Your task to perform on an android device: Open the calendar app, open the side menu, and click the "Day" option Image 0: 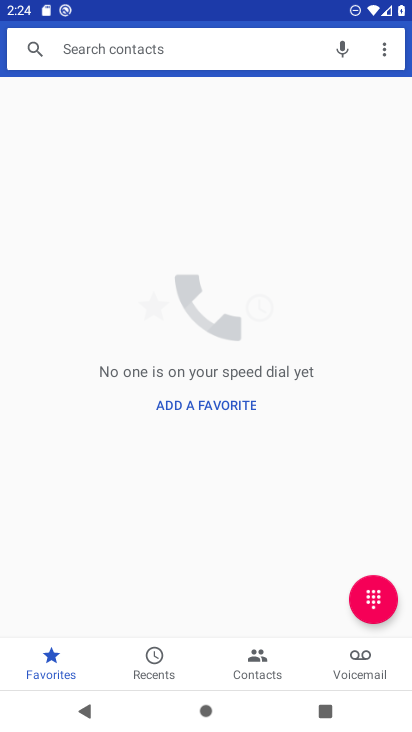
Step 0: press home button
Your task to perform on an android device: Open the calendar app, open the side menu, and click the "Day" option Image 1: 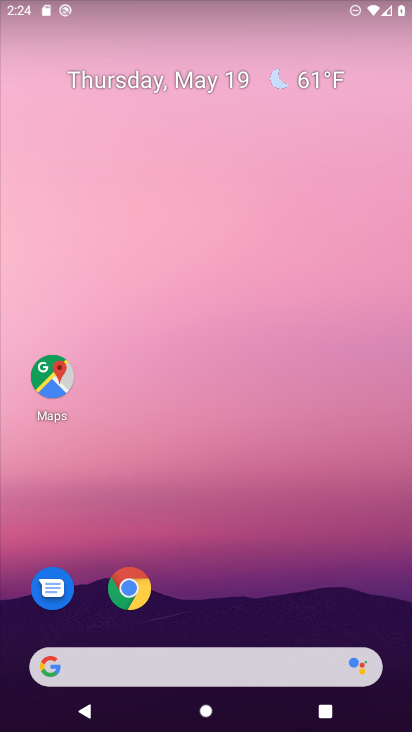
Step 1: drag from (290, 620) to (309, 4)
Your task to perform on an android device: Open the calendar app, open the side menu, and click the "Day" option Image 2: 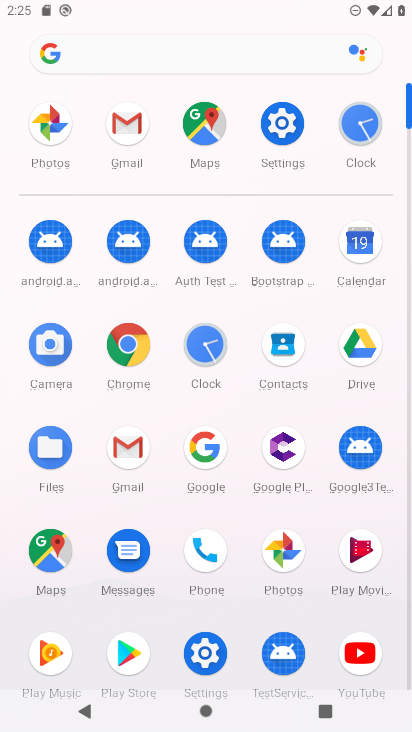
Step 2: click (364, 247)
Your task to perform on an android device: Open the calendar app, open the side menu, and click the "Day" option Image 3: 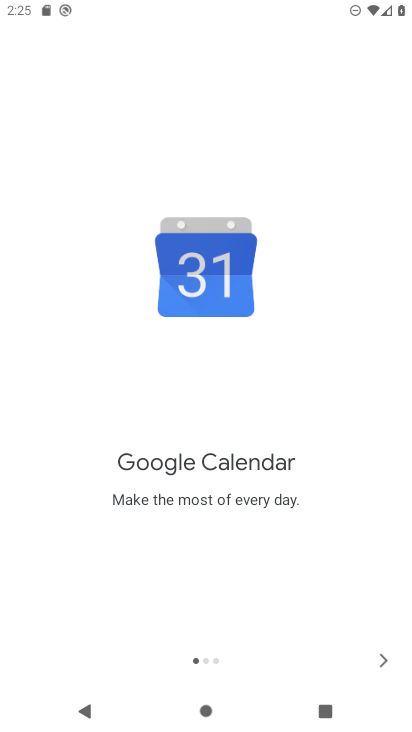
Step 3: click (385, 663)
Your task to perform on an android device: Open the calendar app, open the side menu, and click the "Day" option Image 4: 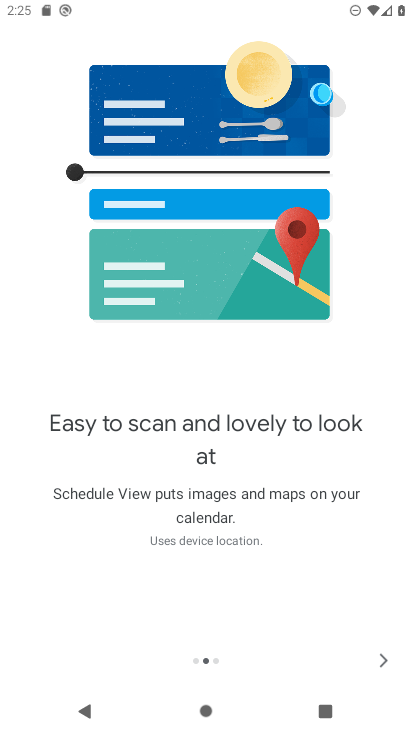
Step 4: click (385, 663)
Your task to perform on an android device: Open the calendar app, open the side menu, and click the "Day" option Image 5: 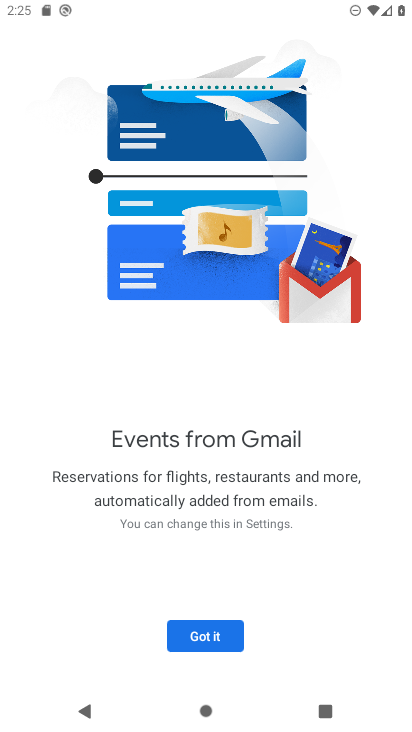
Step 5: click (201, 637)
Your task to perform on an android device: Open the calendar app, open the side menu, and click the "Day" option Image 6: 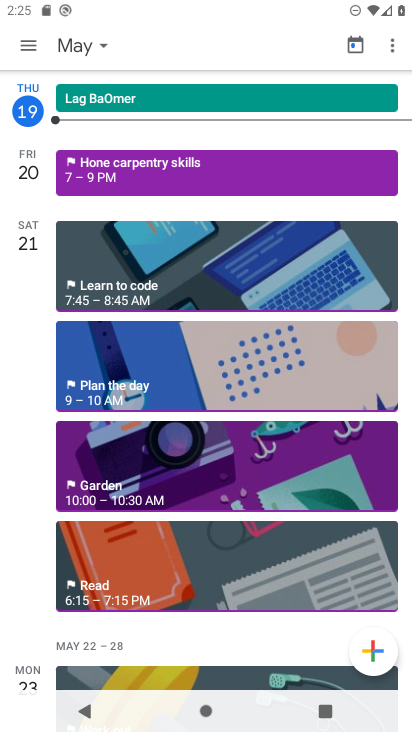
Step 6: click (27, 42)
Your task to perform on an android device: Open the calendar app, open the side menu, and click the "Day" option Image 7: 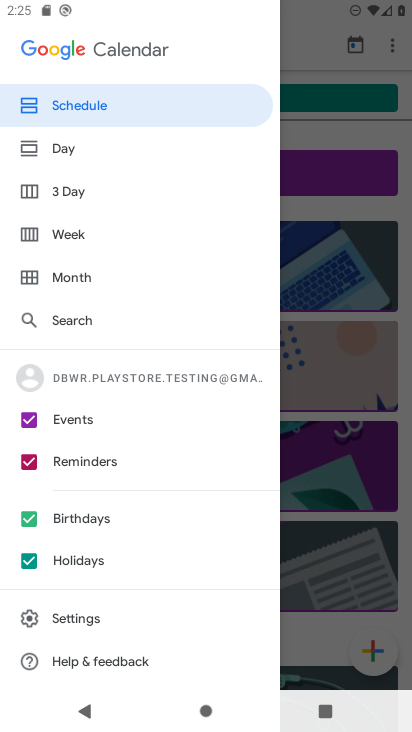
Step 7: click (63, 154)
Your task to perform on an android device: Open the calendar app, open the side menu, and click the "Day" option Image 8: 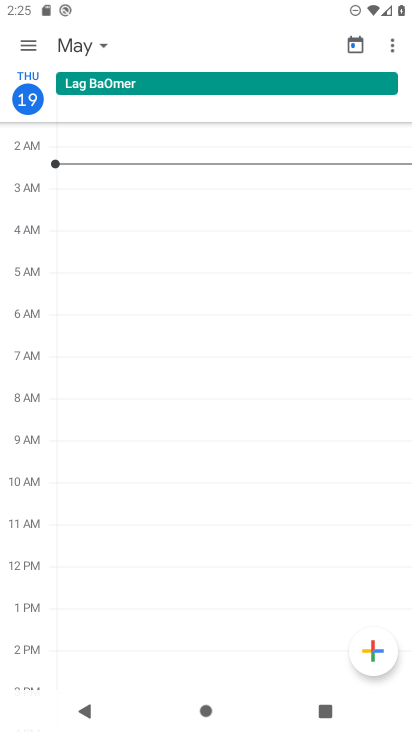
Step 8: task complete